Your task to perform on an android device: turn vacation reply on in the gmail app Image 0: 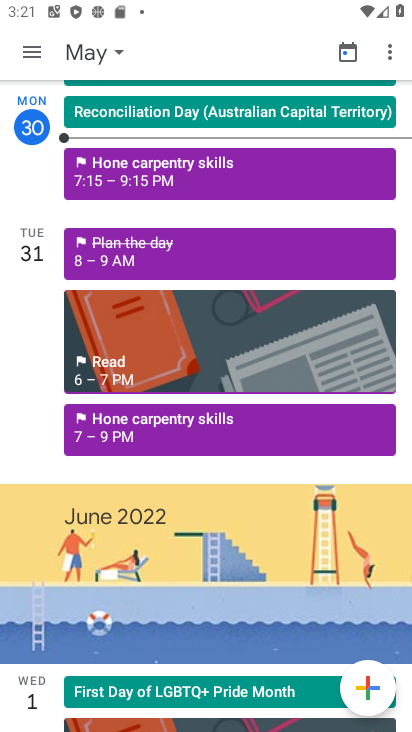
Step 0: press home button
Your task to perform on an android device: turn vacation reply on in the gmail app Image 1: 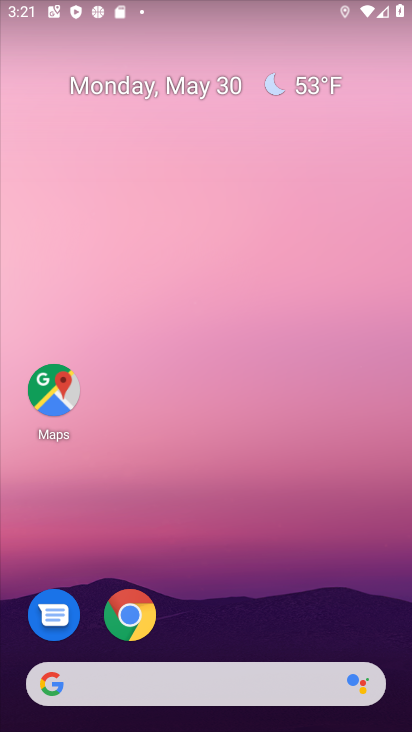
Step 1: drag from (228, 630) to (258, 123)
Your task to perform on an android device: turn vacation reply on in the gmail app Image 2: 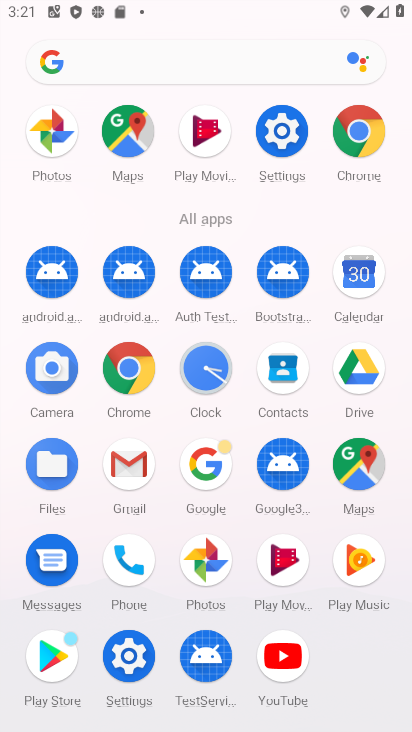
Step 2: click (116, 482)
Your task to perform on an android device: turn vacation reply on in the gmail app Image 3: 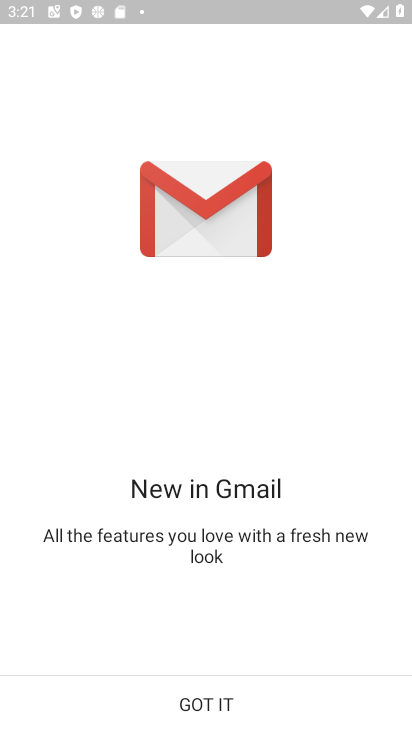
Step 3: click (235, 676)
Your task to perform on an android device: turn vacation reply on in the gmail app Image 4: 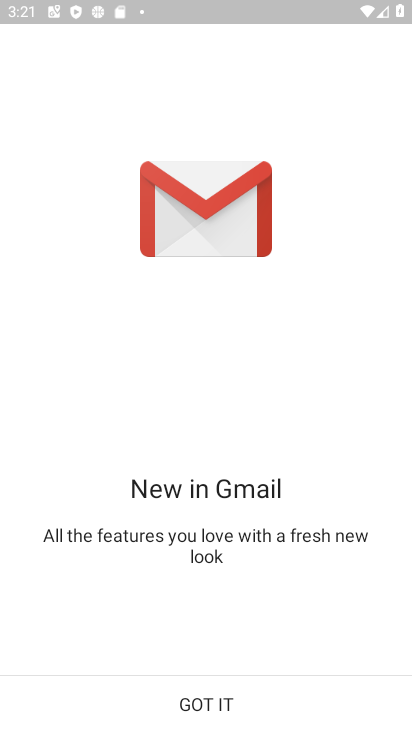
Step 4: click (236, 682)
Your task to perform on an android device: turn vacation reply on in the gmail app Image 5: 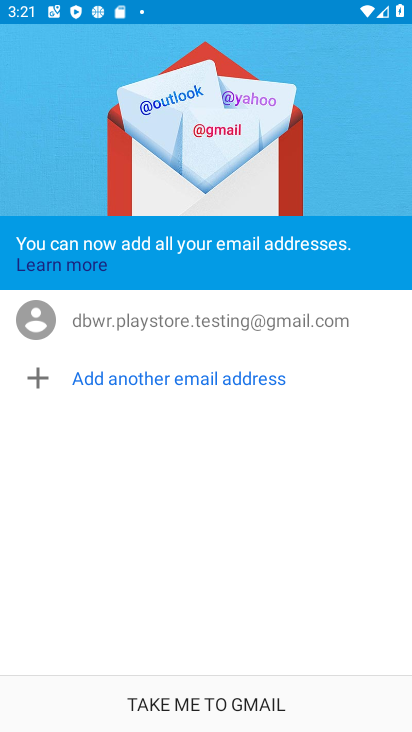
Step 5: click (236, 682)
Your task to perform on an android device: turn vacation reply on in the gmail app Image 6: 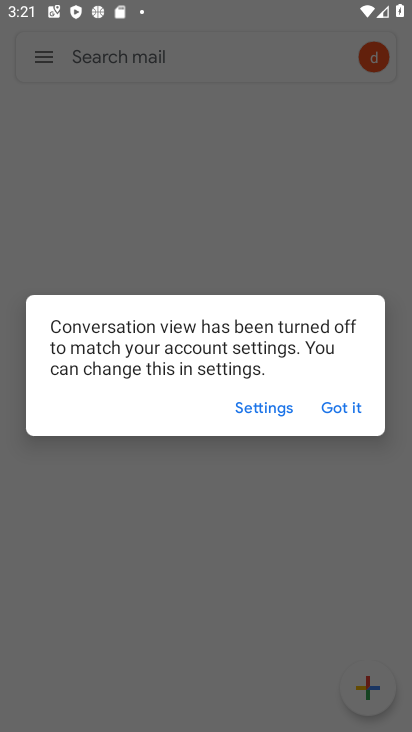
Step 6: click (333, 411)
Your task to perform on an android device: turn vacation reply on in the gmail app Image 7: 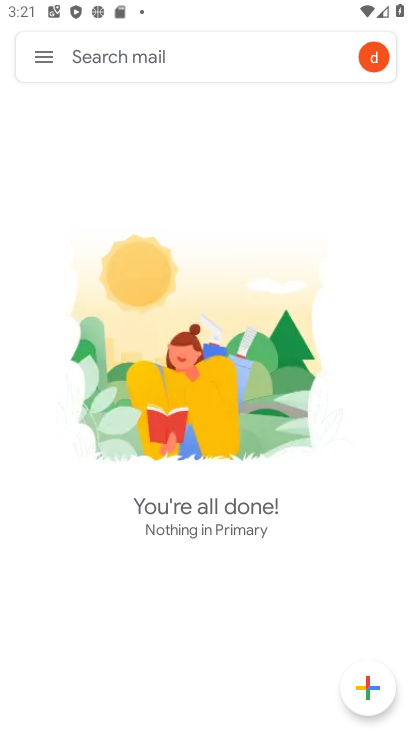
Step 7: click (46, 69)
Your task to perform on an android device: turn vacation reply on in the gmail app Image 8: 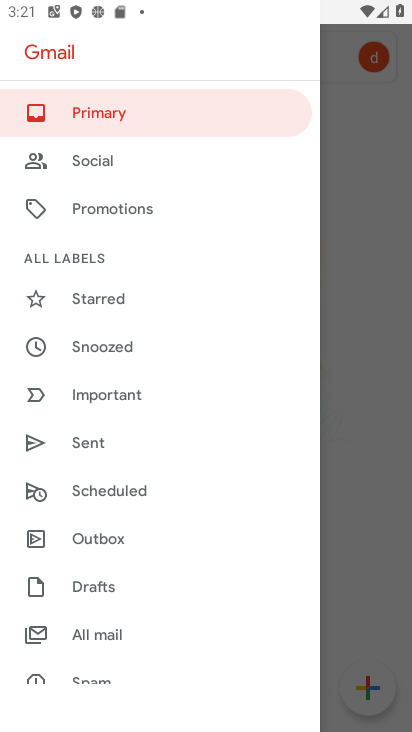
Step 8: drag from (200, 586) to (184, 167)
Your task to perform on an android device: turn vacation reply on in the gmail app Image 9: 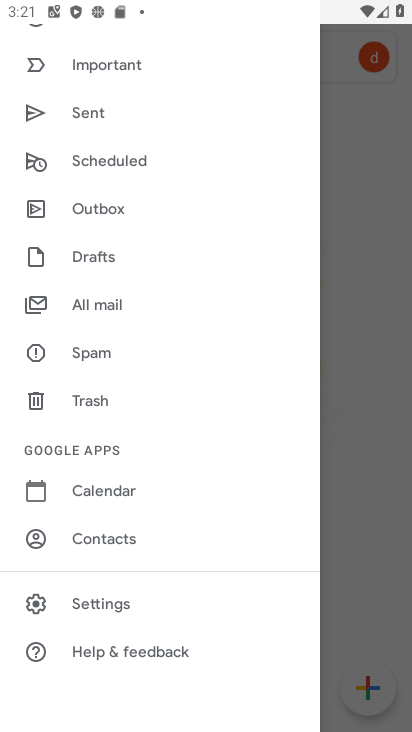
Step 9: click (151, 586)
Your task to perform on an android device: turn vacation reply on in the gmail app Image 10: 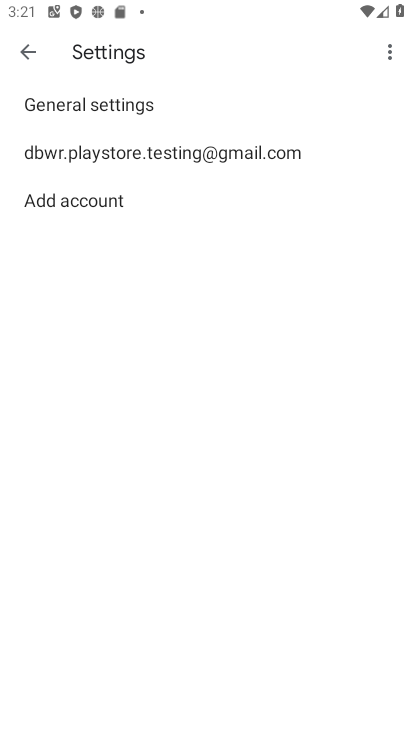
Step 10: click (104, 144)
Your task to perform on an android device: turn vacation reply on in the gmail app Image 11: 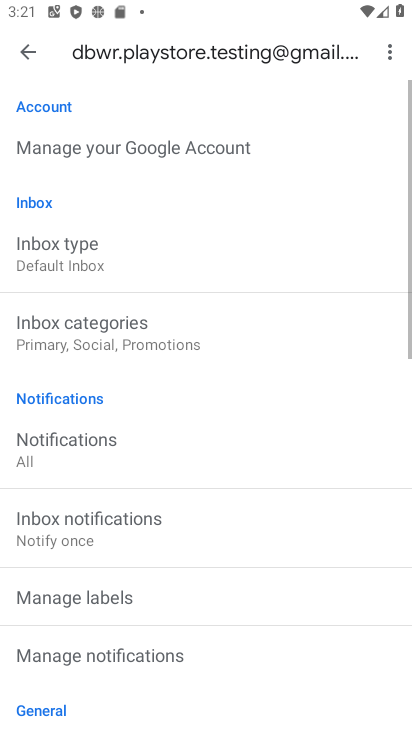
Step 11: task complete